Your task to perform on an android device: Open network settings Image 0: 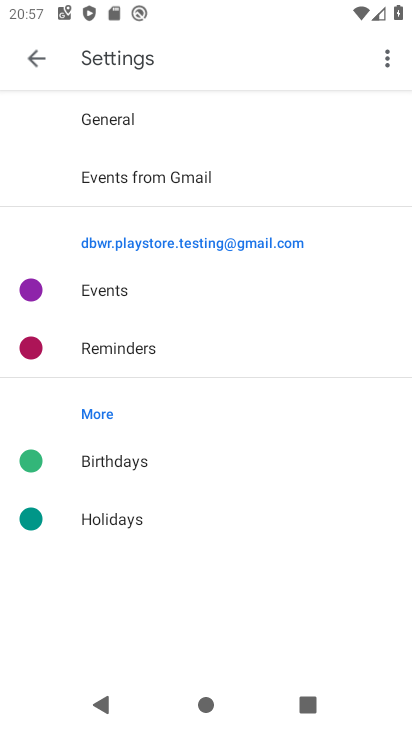
Step 0: press home button
Your task to perform on an android device: Open network settings Image 1: 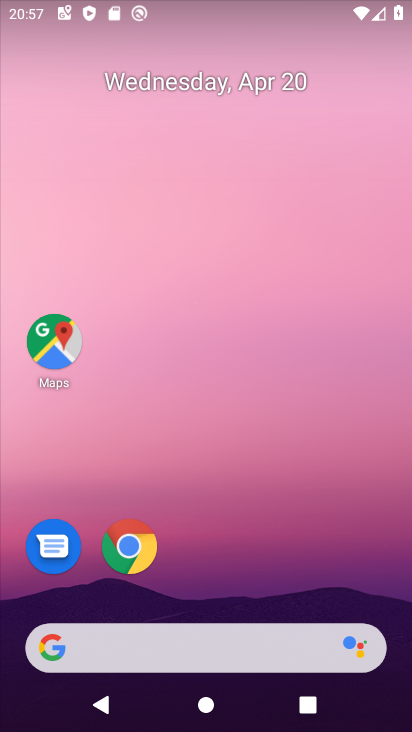
Step 1: drag from (324, 474) to (325, 127)
Your task to perform on an android device: Open network settings Image 2: 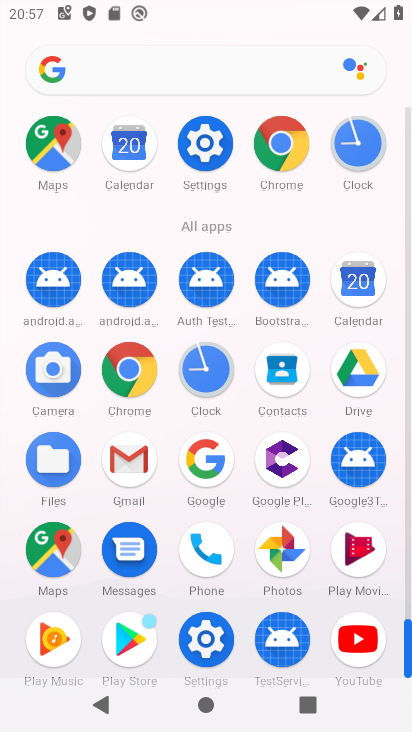
Step 2: click (208, 178)
Your task to perform on an android device: Open network settings Image 3: 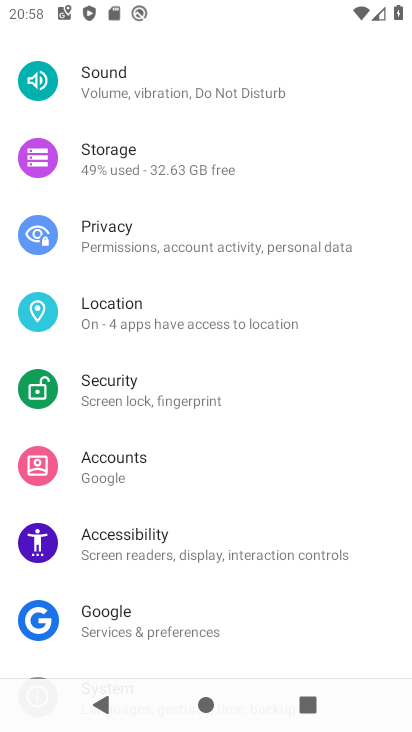
Step 3: drag from (146, 115) to (144, 635)
Your task to perform on an android device: Open network settings Image 4: 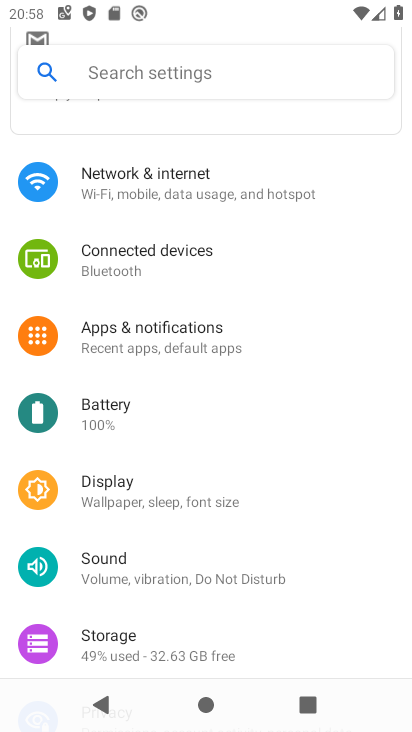
Step 4: click (143, 190)
Your task to perform on an android device: Open network settings Image 5: 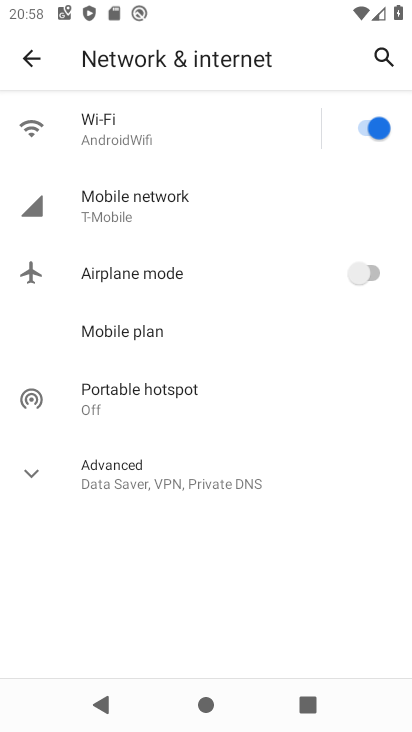
Step 5: task complete